Your task to perform on an android device: What's on my calendar today? Image 0: 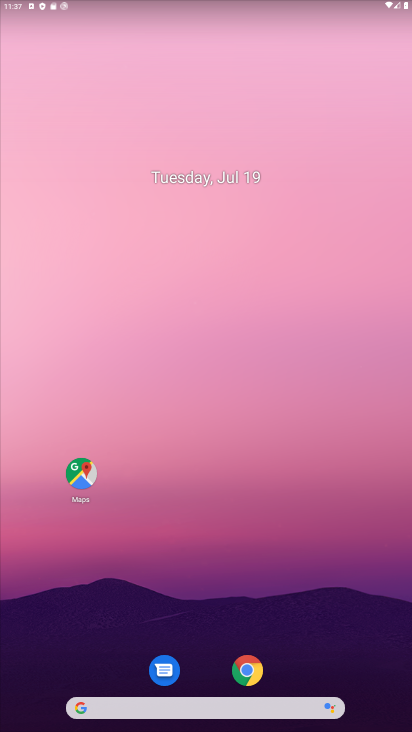
Step 0: drag from (36, 605) to (264, 86)
Your task to perform on an android device: What's on my calendar today? Image 1: 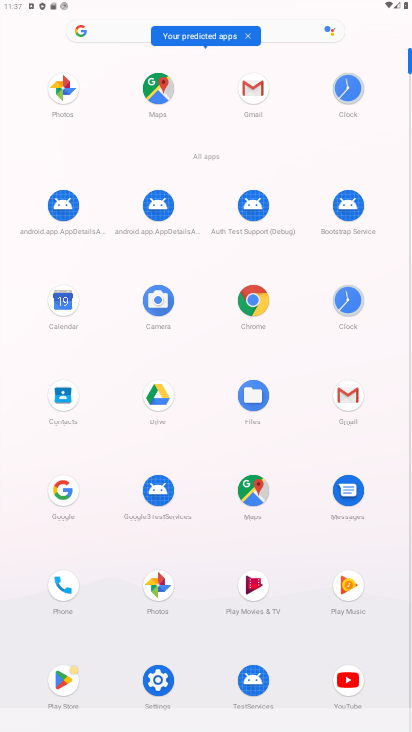
Step 1: click (57, 290)
Your task to perform on an android device: What's on my calendar today? Image 2: 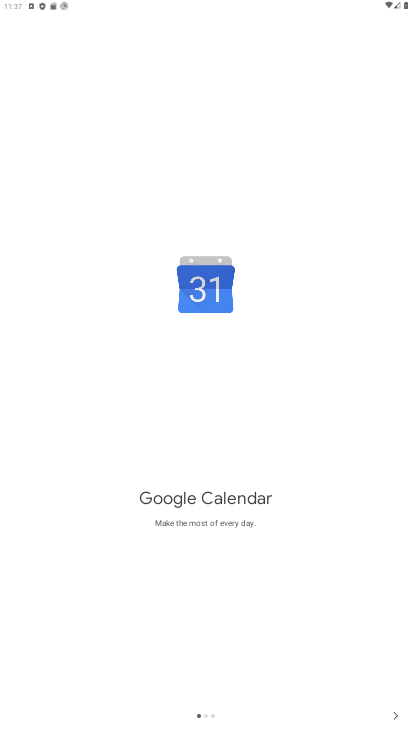
Step 2: click (396, 719)
Your task to perform on an android device: What's on my calendar today? Image 3: 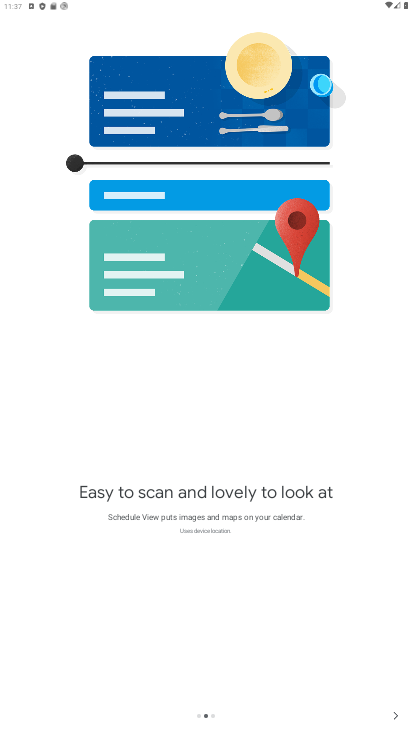
Step 3: click (396, 712)
Your task to perform on an android device: What's on my calendar today? Image 4: 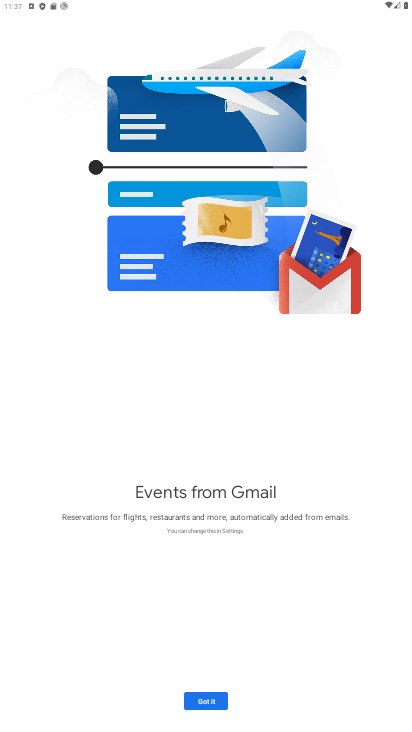
Step 4: click (210, 702)
Your task to perform on an android device: What's on my calendar today? Image 5: 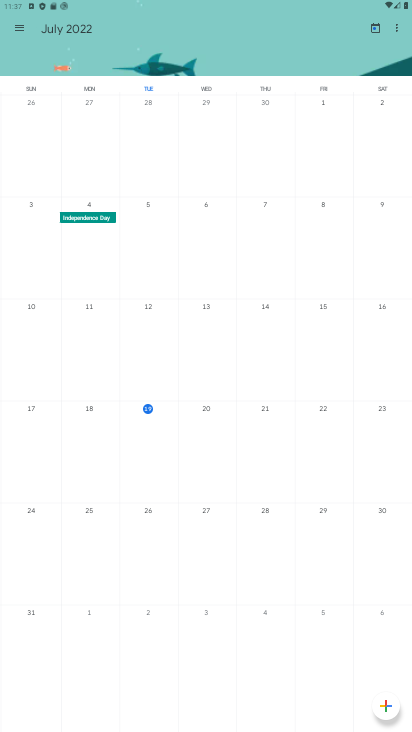
Step 5: click (141, 421)
Your task to perform on an android device: What's on my calendar today? Image 6: 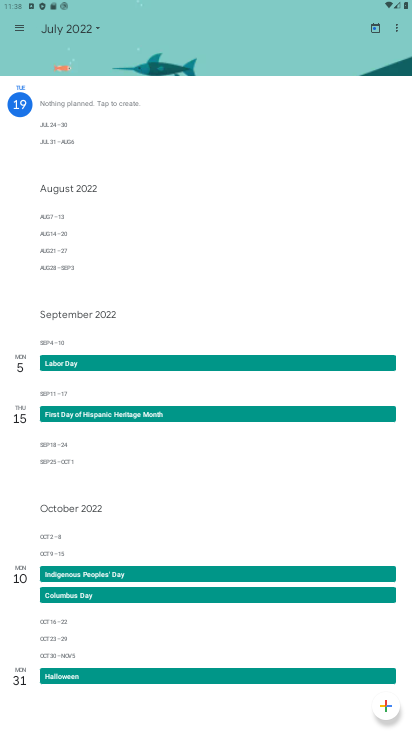
Step 6: task complete